Your task to perform on an android device: toggle location history Image 0: 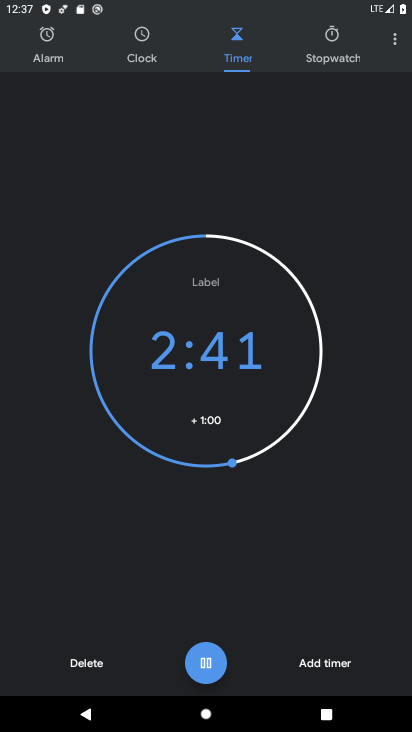
Step 0: press home button
Your task to perform on an android device: toggle location history Image 1: 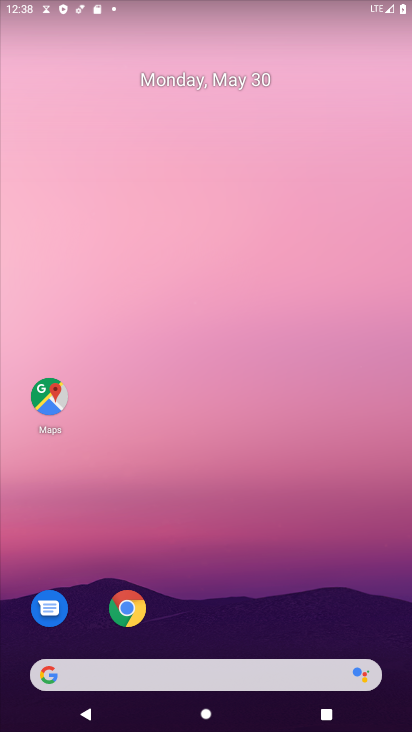
Step 1: drag from (224, 579) to (282, 47)
Your task to perform on an android device: toggle location history Image 2: 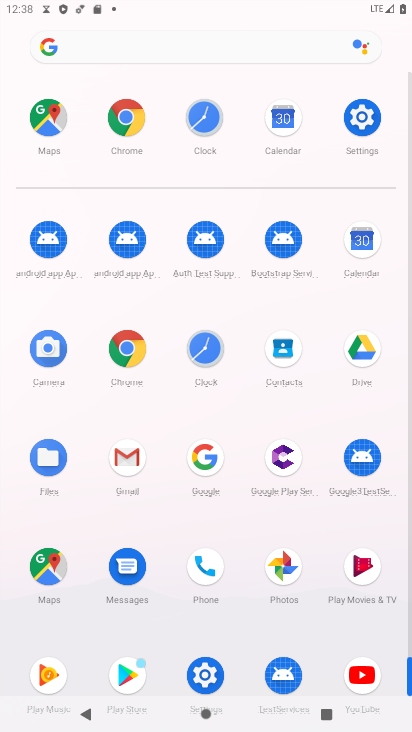
Step 2: click (360, 138)
Your task to perform on an android device: toggle location history Image 3: 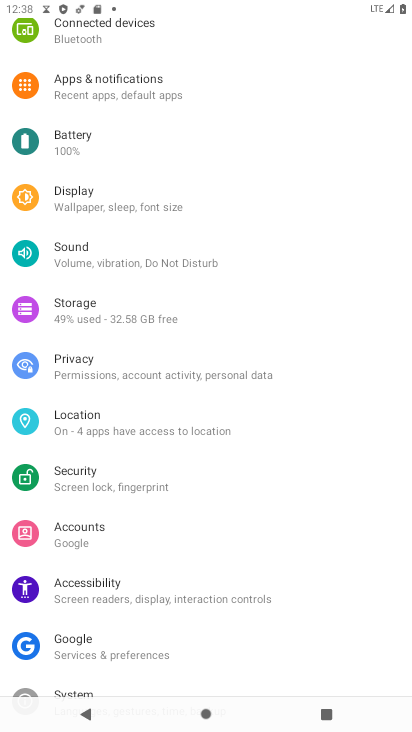
Step 3: click (106, 434)
Your task to perform on an android device: toggle location history Image 4: 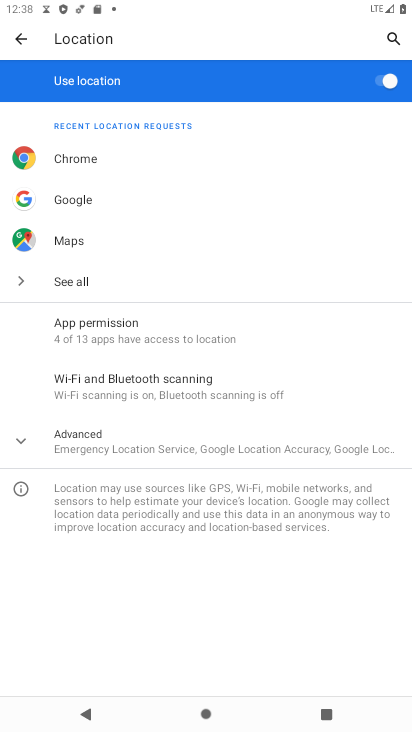
Step 4: click (115, 452)
Your task to perform on an android device: toggle location history Image 5: 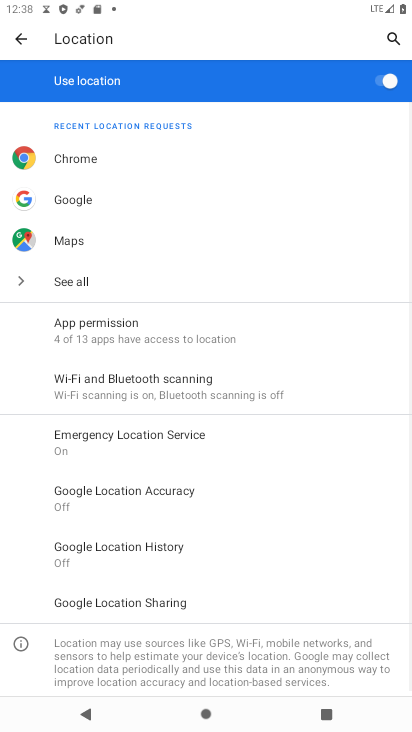
Step 5: click (154, 554)
Your task to perform on an android device: toggle location history Image 6: 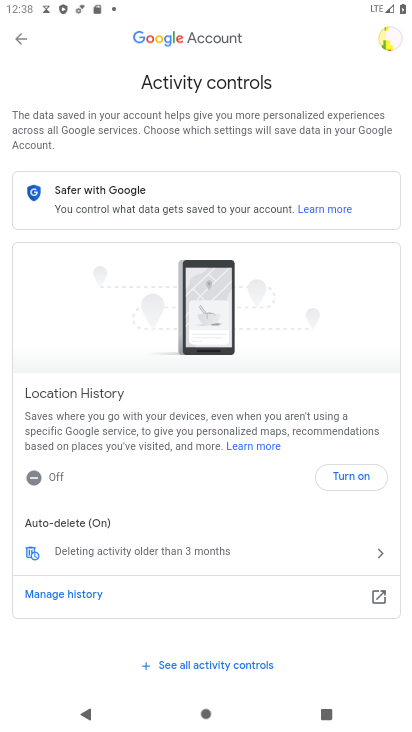
Step 6: click (363, 477)
Your task to perform on an android device: toggle location history Image 7: 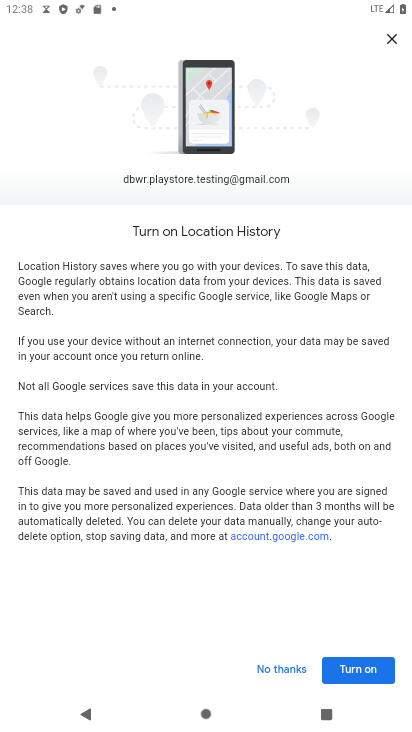
Step 7: click (342, 673)
Your task to perform on an android device: toggle location history Image 8: 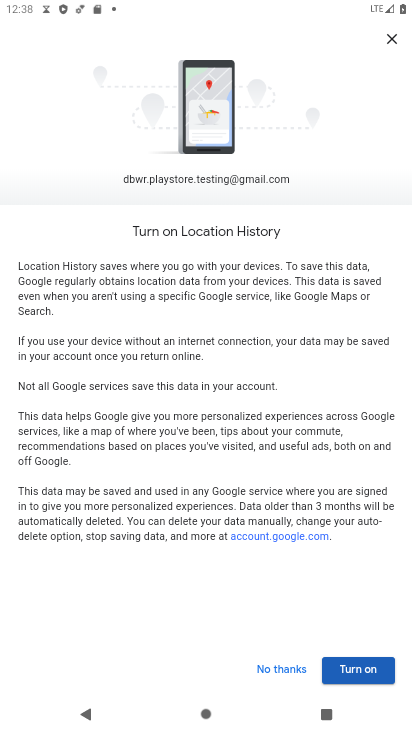
Step 8: click (381, 672)
Your task to perform on an android device: toggle location history Image 9: 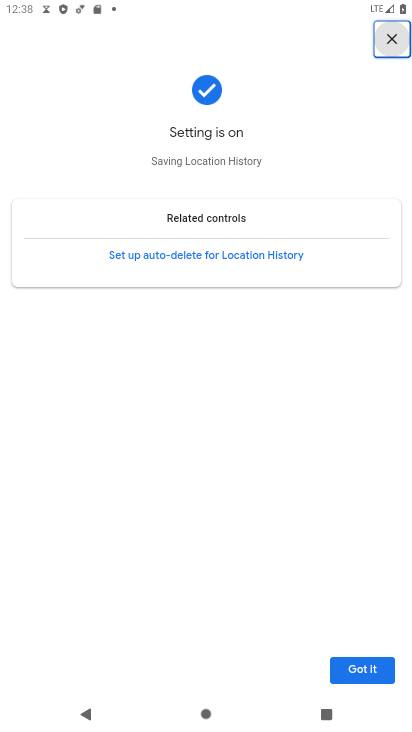
Step 9: click (386, 666)
Your task to perform on an android device: toggle location history Image 10: 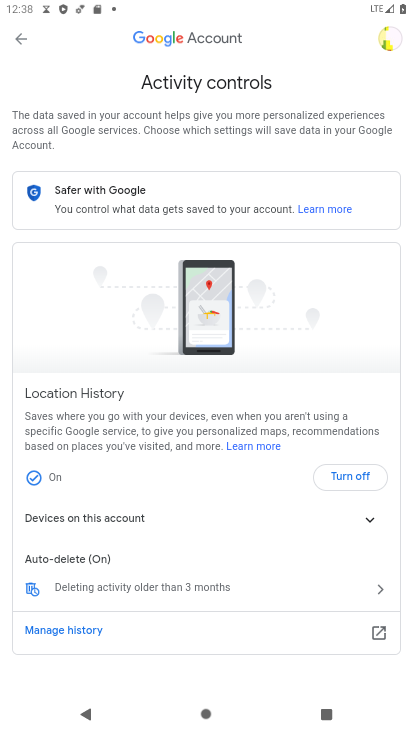
Step 10: task complete